Your task to perform on an android device: turn on javascript in the chrome app Image 0: 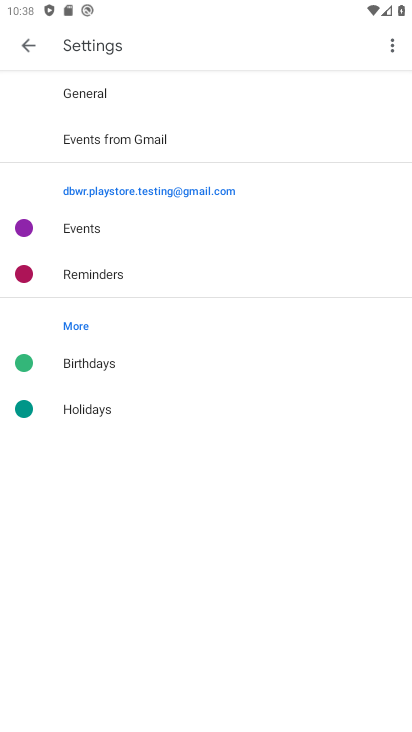
Step 0: press home button
Your task to perform on an android device: turn on javascript in the chrome app Image 1: 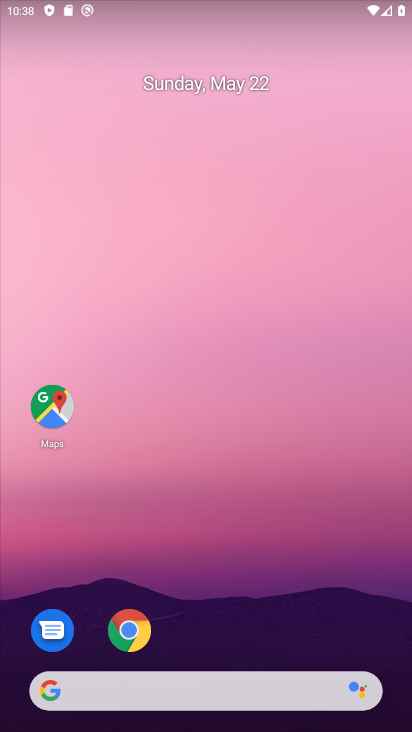
Step 1: drag from (338, 594) to (342, 222)
Your task to perform on an android device: turn on javascript in the chrome app Image 2: 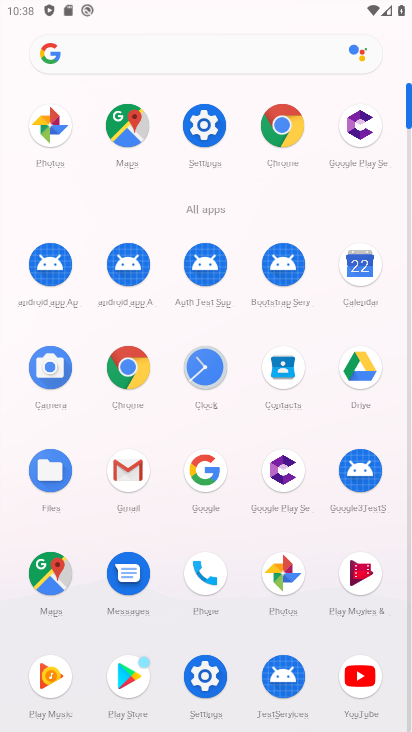
Step 2: click (126, 391)
Your task to perform on an android device: turn on javascript in the chrome app Image 3: 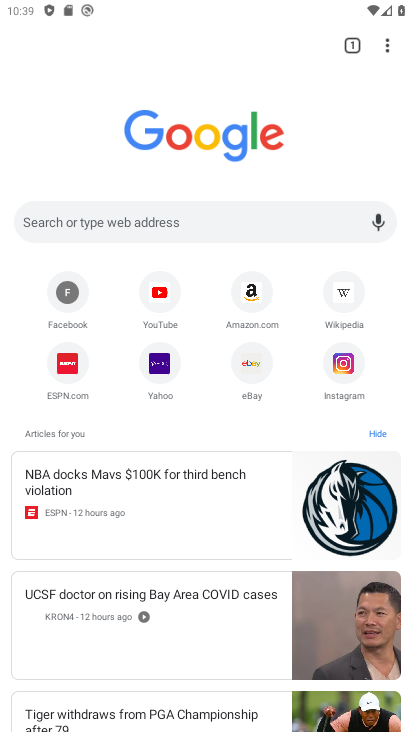
Step 3: click (384, 46)
Your task to perform on an android device: turn on javascript in the chrome app Image 4: 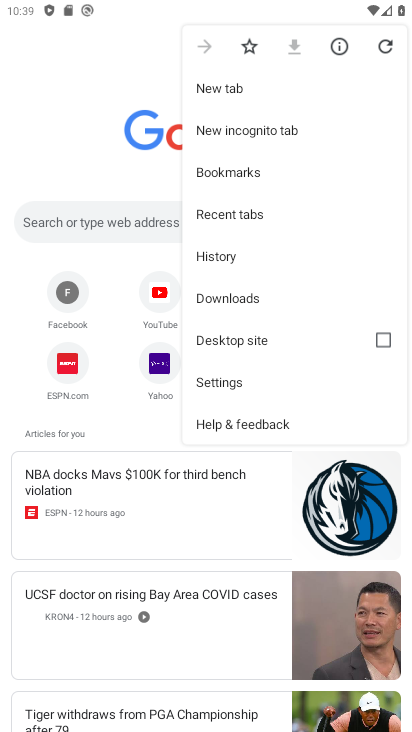
Step 4: drag from (302, 368) to (318, 240)
Your task to perform on an android device: turn on javascript in the chrome app Image 5: 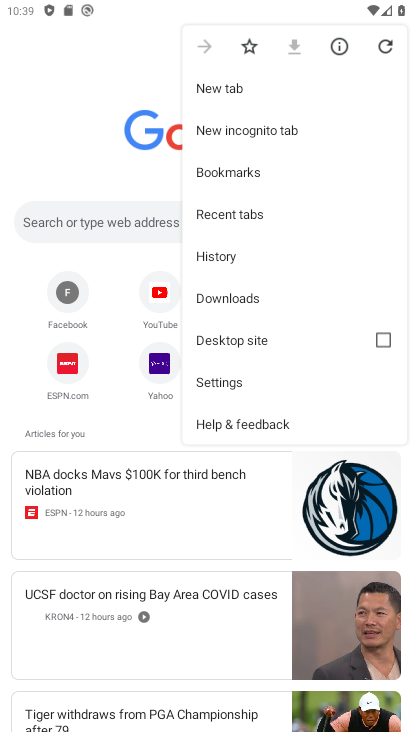
Step 5: click (252, 391)
Your task to perform on an android device: turn on javascript in the chrome app Image 6: 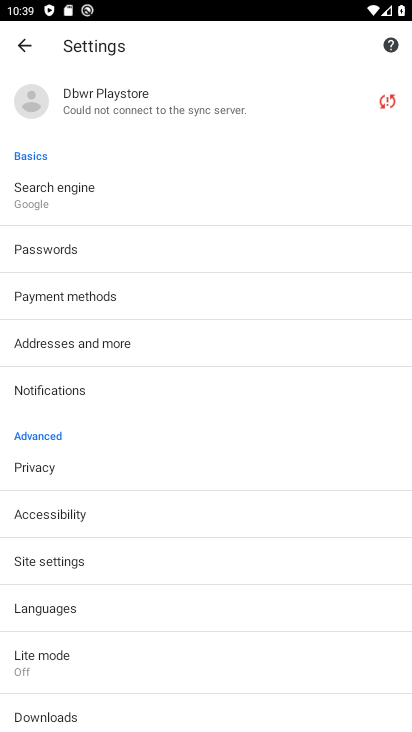
Step 6: drag from (270, 535) to (288, 422)
Your task to perform on an android device: turn on javascript in the chrome app Image 7: 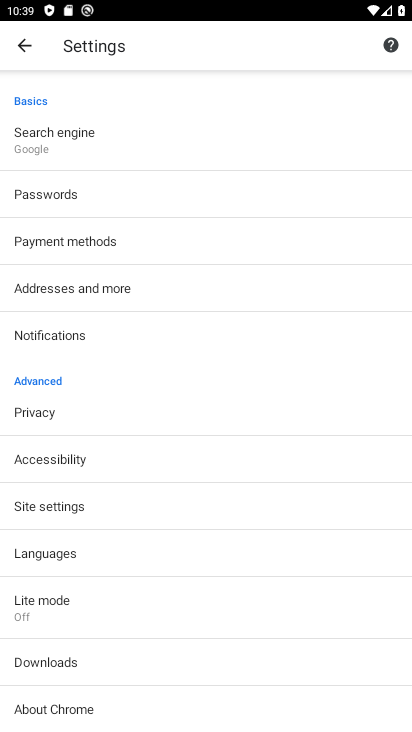
Step 7: drag from (293, 544) to (300, 433)
Your task to perform on an android device: turn on javascript in the chrome app Image 8: 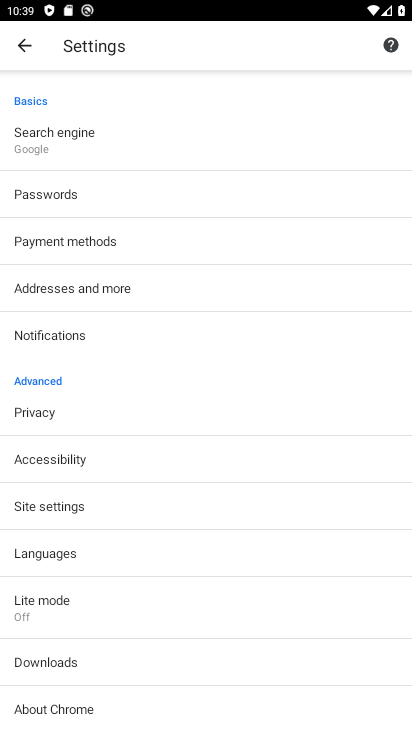
Step 8: drag from (294, 549) to (299, 399)
Your task to perform on an android device: turn on javascript in the chrome app Image 9: 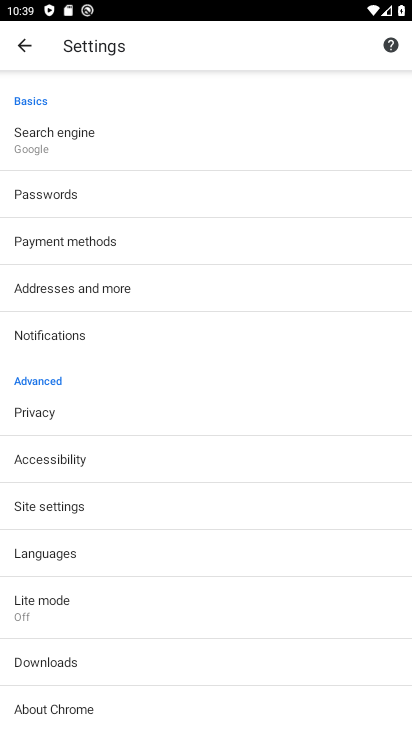
Step 9: click (179, 498)
Your task to perform on an android device: turn on javascript in the chrome app Image 10: 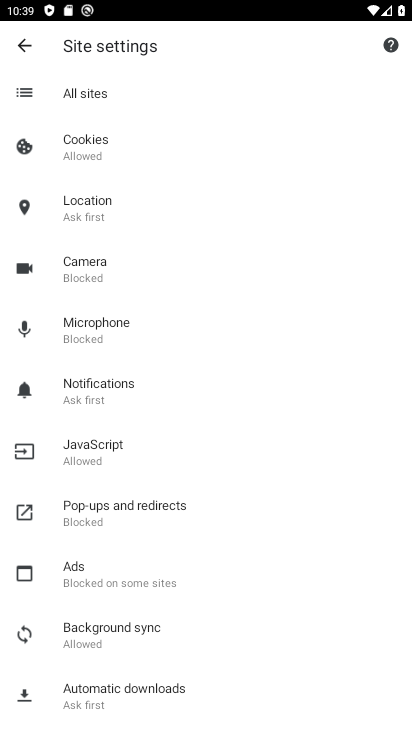
Step 10: click (135, 454)
Your task to perform on an android device: turn on javascript in the chrome app Image 11: 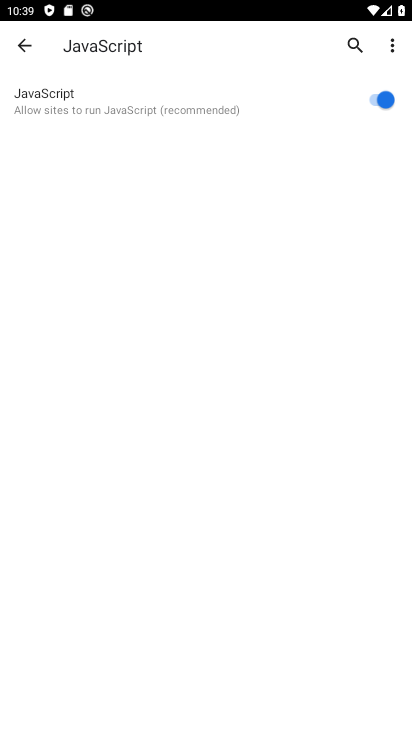
Step 11: task complete